Your task to perform on an android device: turn on showing notifications on the lock screen Image 0: 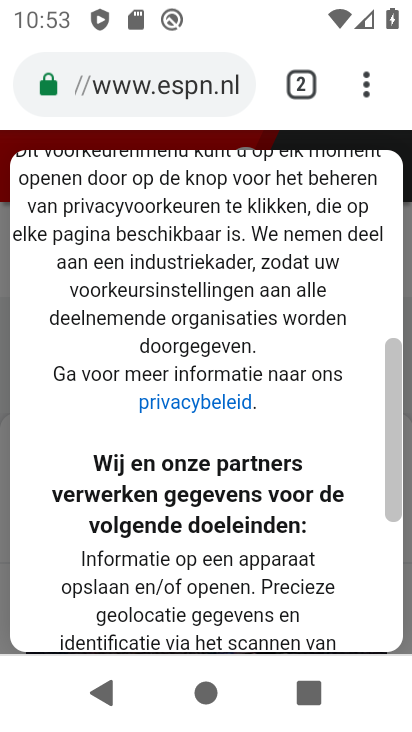
Step 0: press home button
Your task to perform on an android device: turn on showing notifications on the lock screen Image 1: 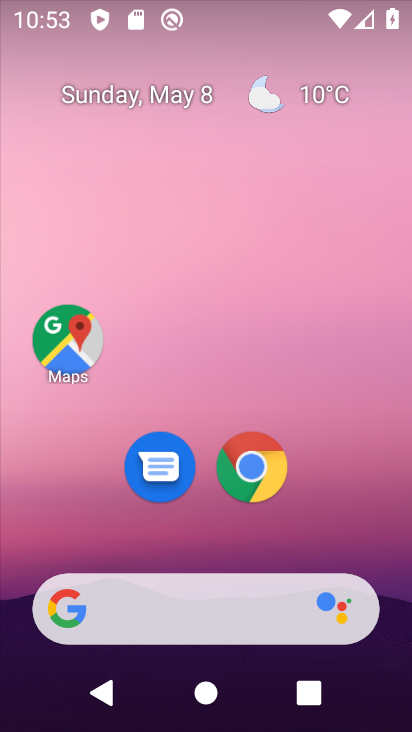
Step 1: drag from (356, 551) to (310, 11)
Your task to perform on an android device: turn on showing notifications on the lock screen Image 2: 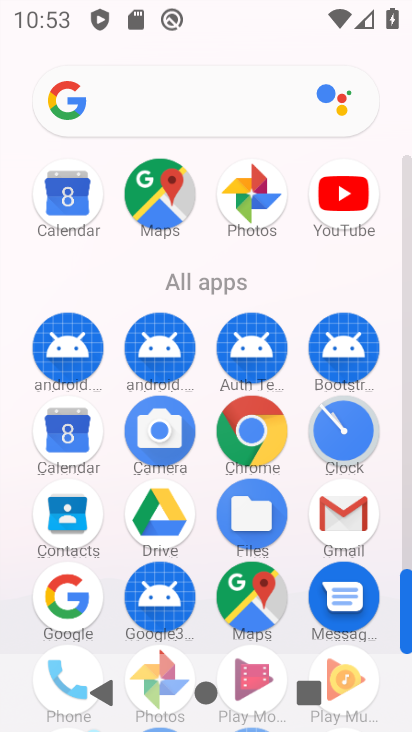
Step 2: drag from (389, 520) to (376, 342)
Your task to perform on an android device: turn on showing notifications on the lock screen Image 3: 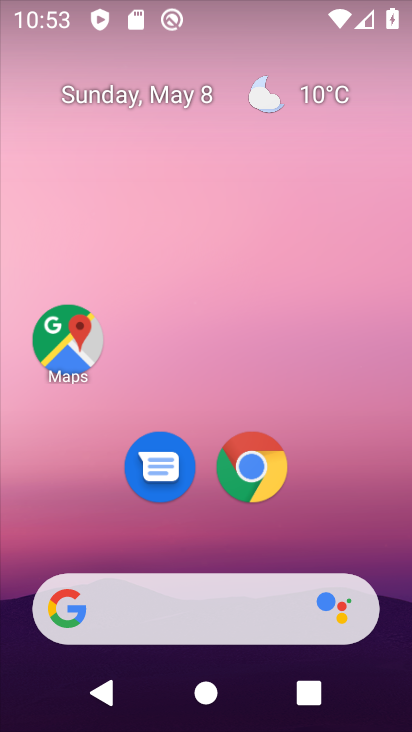
Step 3: drag from (368, 484) to (347, 131)
Your task to perform on an android device: turn on showing notifications on the lock screen Image 4: 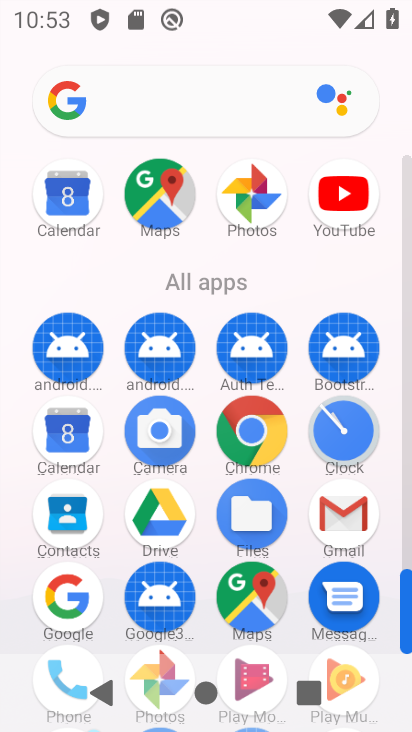
Step 4: drag from (396, 533) to (400, 390)
Your task to perform on an android device: turn on showing notifications on the lock screen Image 5: 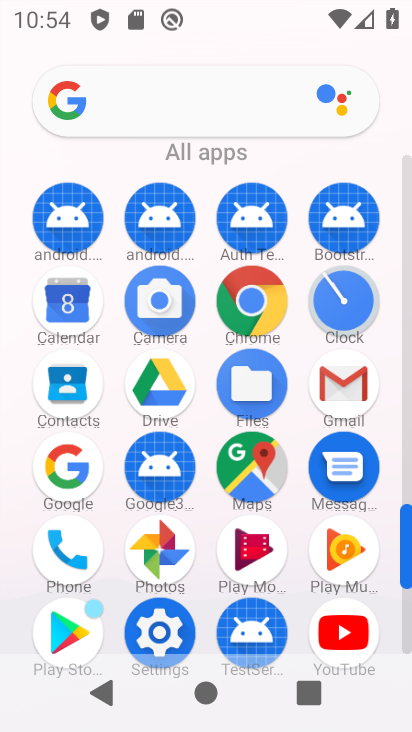
Step 5: click (151, 612)
Your task to perform on an android device: turn on showing notifications on the lock screen Image 6: 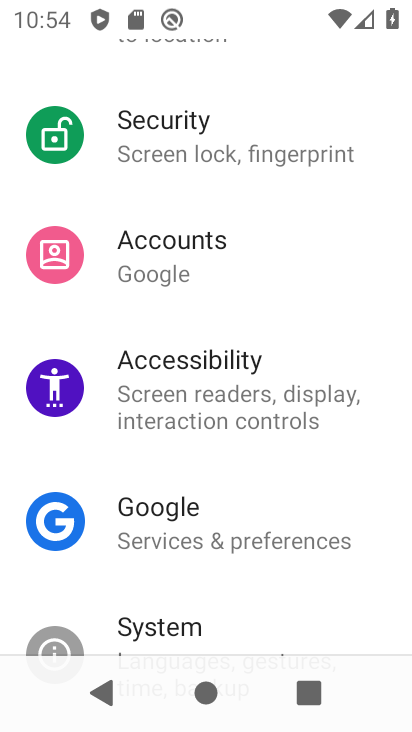
Step 6: drag from (312, 330) to (352, 663)
Your task to perform on an android device: turn on showing notifications on the lock screen Image 7: 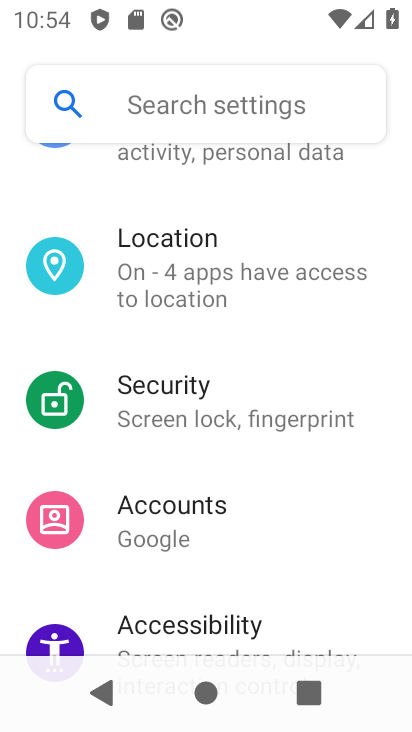
Step 7: drag from (208, 195) to (228, 556)
Your task to perform on an android device: turn on showing notifications on the lock screen Image 8: 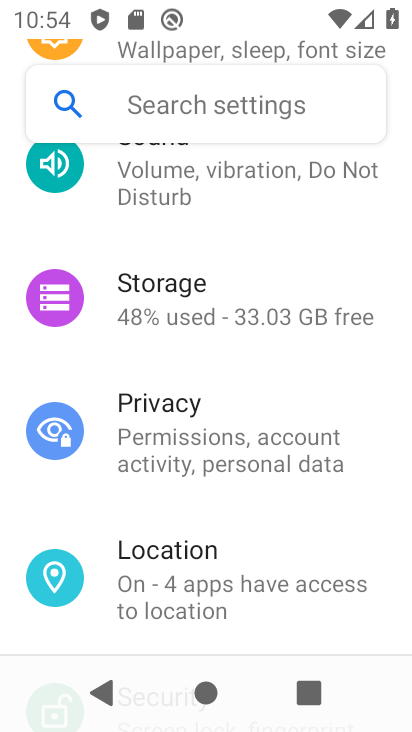
Step 8: drag from (201, 398) to (312, 683)
Your task to perform on an android device: turn on showing notifications on the lock screen Image 9: 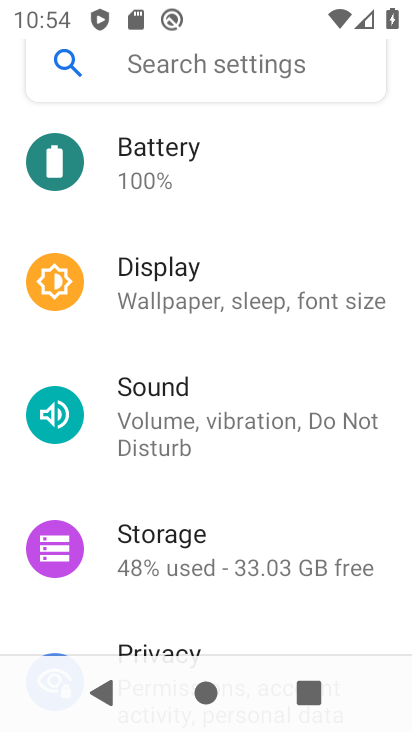
Step 9: drag from (229, 219) to (226, 591)
Your task to perform on an android device: turn on showing notifications on the lock screen Image 10: 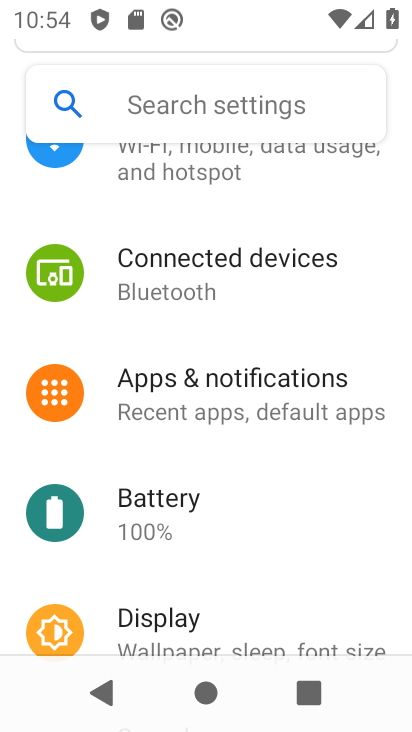
Step 10: drag from (211, 217) to (225, 543)
Your task to perform on an android device: turn on showing notifications on the lock screen Image 11: 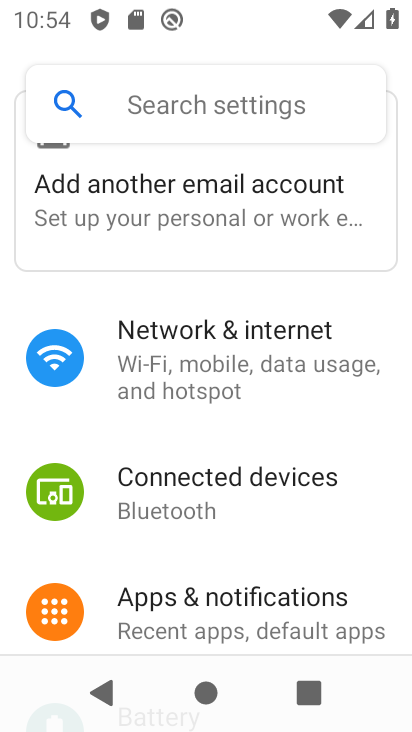
Step 11: click (215, 620)
Your task to perform on an android device: turn on showing notifications on the lock screen Image 12: 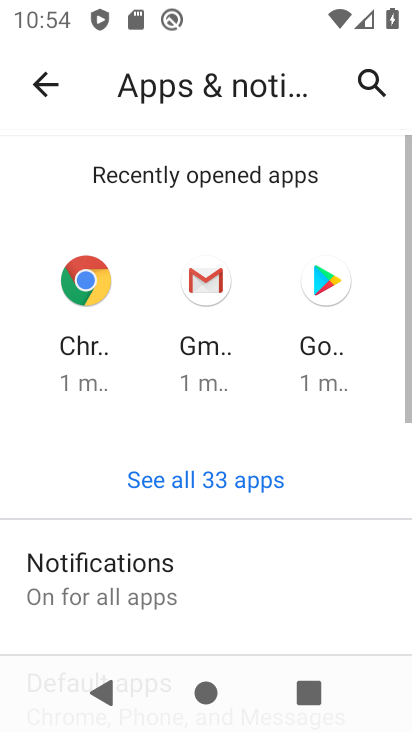
Step 12: click (236, 587)
Your task to perform on an android device: turn on showing notifications on the lock screen Image 13: 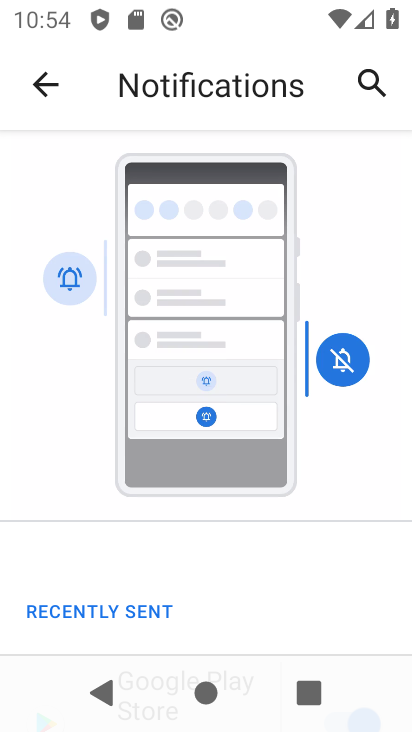
Step 13: drag from (238, 591) to (166, 256)
Your task to perform on an android device: turn on showing notifications on the lock screen Image 14: 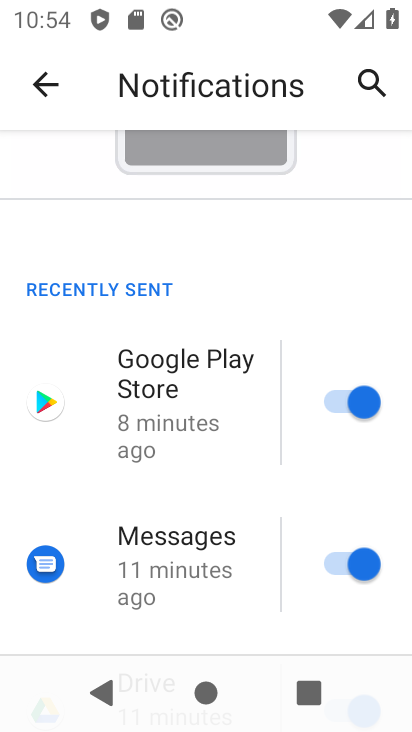
Step 14: drag from (182, 641) to (180, 287)
Your task to perform on an android device: turn on showing notifications on the lock screen Image 15: 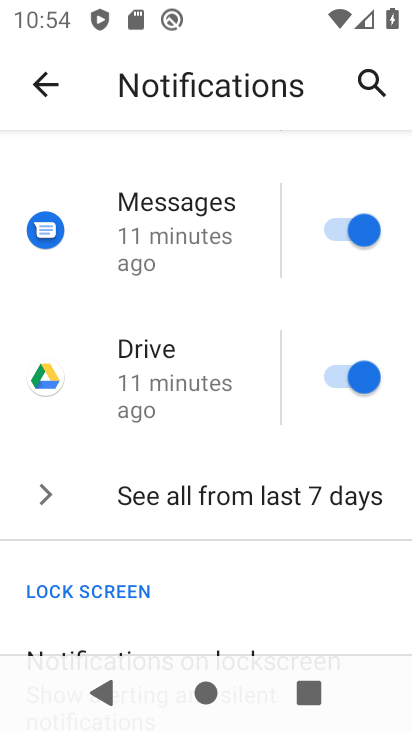
Step 15: drag from (208, 609) to (198, 144)
Your task to perform on an android device: turn on showing notifications on the lock screen Image 16: 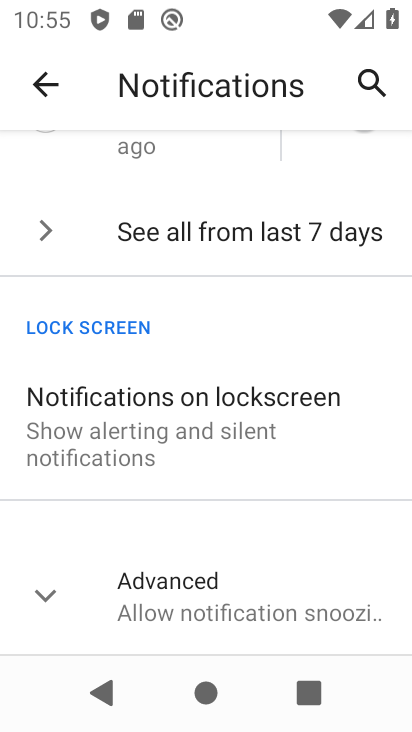
Step 16: click (202, 441)
Your task to perform on an android device: turn on showing notifications on the lock screen Image 17: 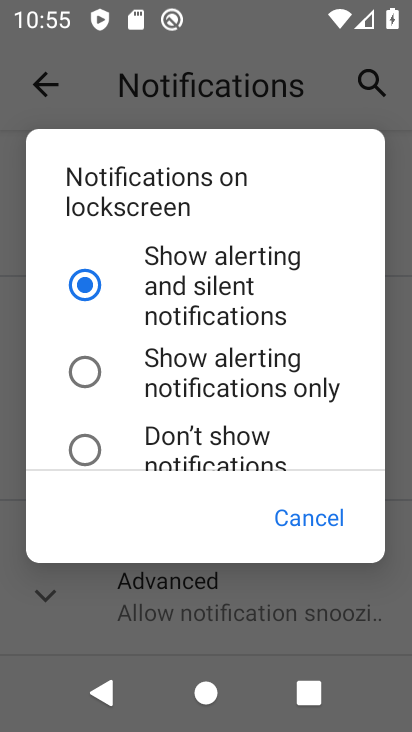
Step 17: task complete